Your task to perform on an android device: Open maps Image 0: 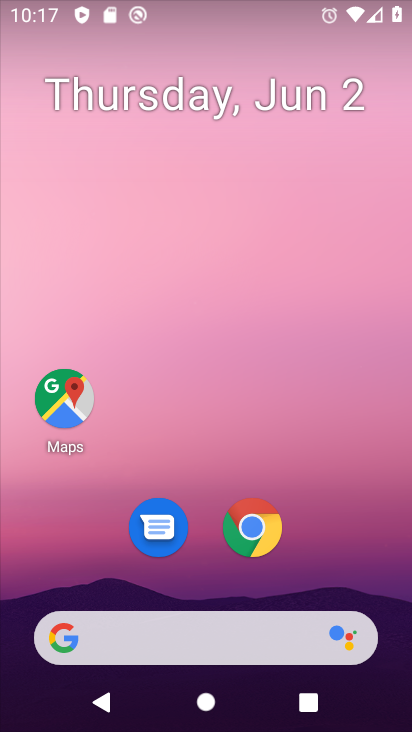
Step 0: click (62, 404)
Your task to perform on an android device: Open maps Image 1: 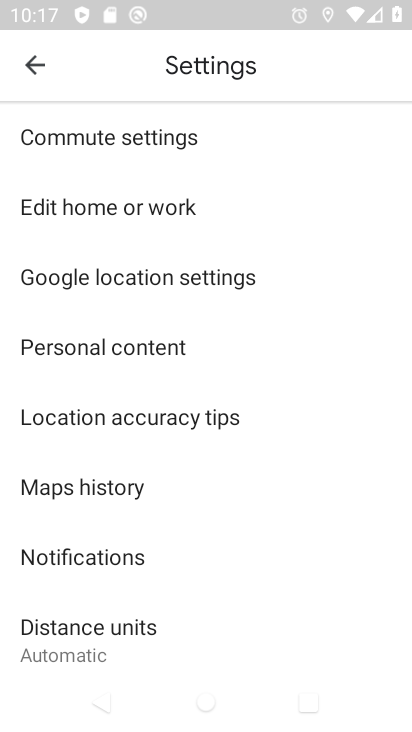
Step 1: task complete